Your task to perform on an android device: Open Maps and search for coffee Image 0: 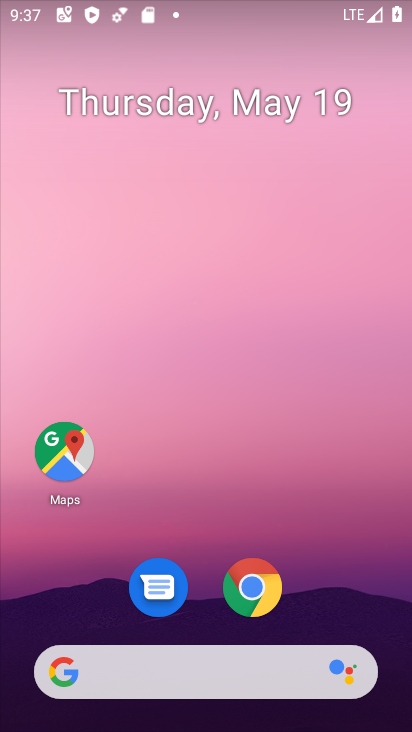
Step 0: click (64, 442)
Your task to perform on an android device: Open Maps and search for coffee Image 1: 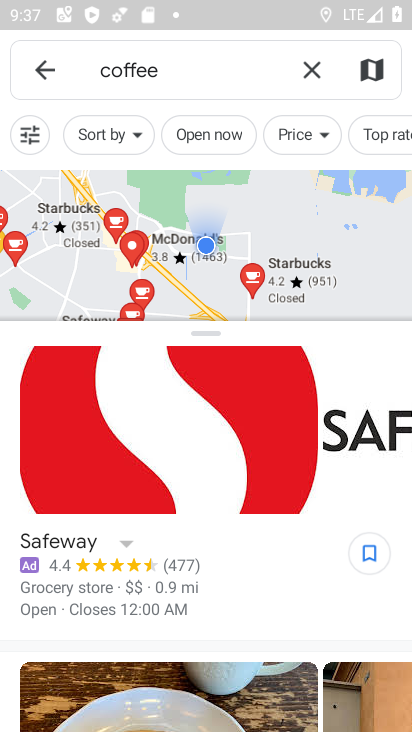
Step 1: task complete